Your task to perform on an android device: empty trash in google photos Image 0: 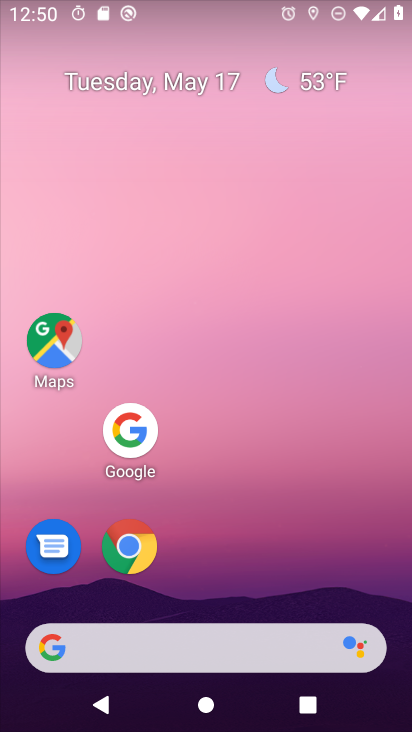
Step 0: drag from (223, 548) to (267, 82)
Your task to perform on an android device: empty trash in google photos Image 1: 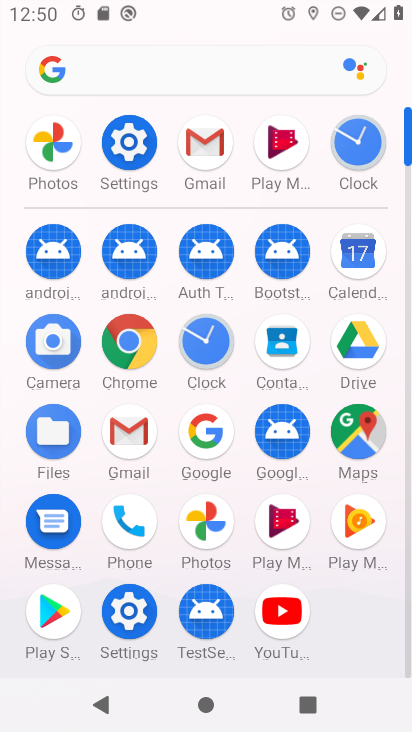
Step 1: click (204, 524)
Your task to perform on an android device: empty trash in google photos Image 2: 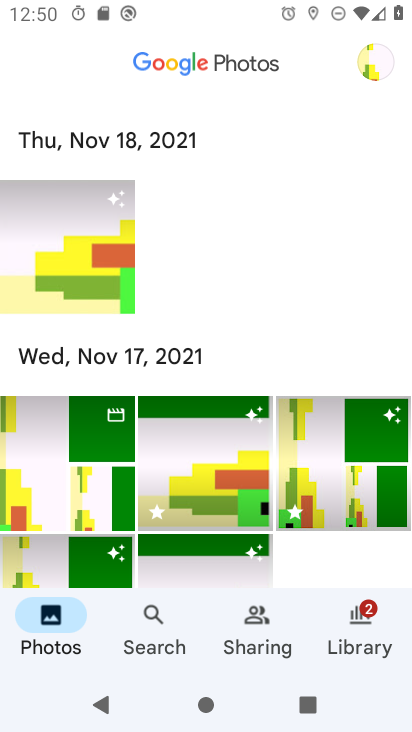
Step 2: click (373, 65)
Your task to perform on an android device: empty trash in google photos Image 3: 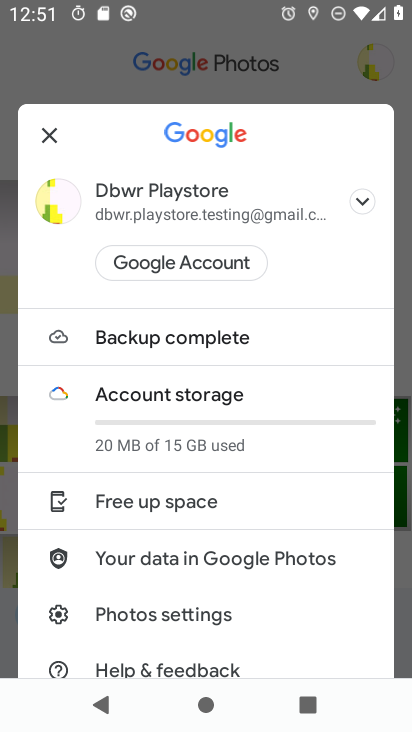
Step 3: drag from (221, 498) to (214, 237)
Your task to perform on an android device: empty trash in google photos Image 4: 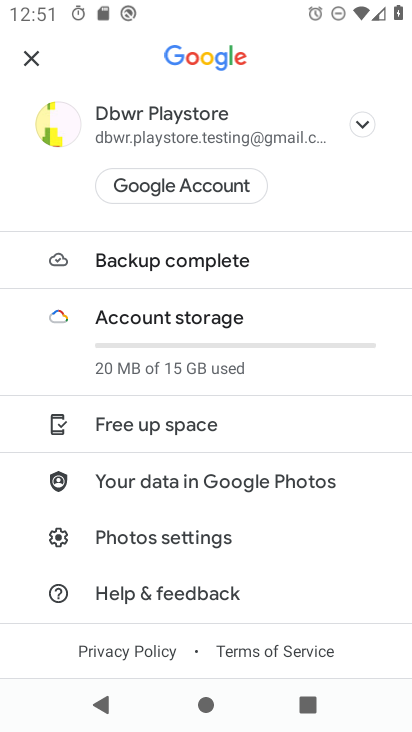
Step 4: press back button
Your task to perform on an android device: empty trash in google photos Image 5: 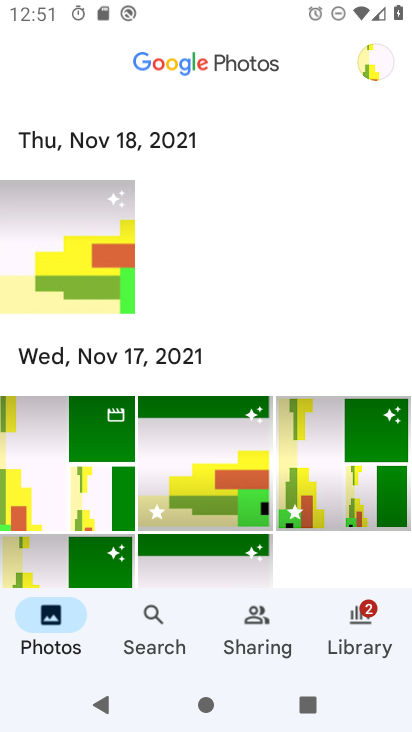
Step 5: click (347, 633)
Your task to perform on an android device: empty trash in google photos Image 6: 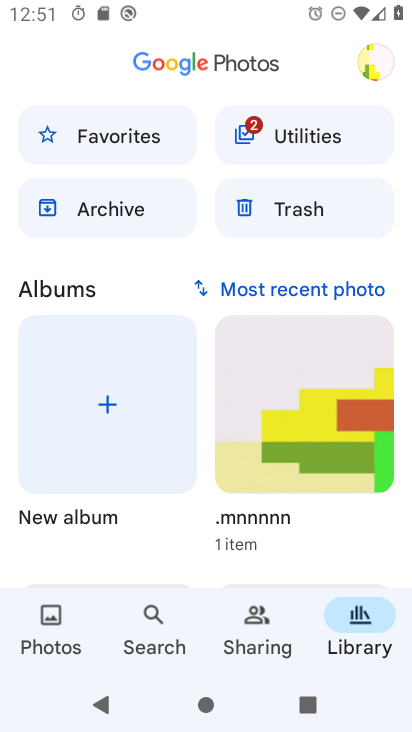
Step 6: click (275, 202)
Your task to perform on an android device: empty trash in google photos Image 7: 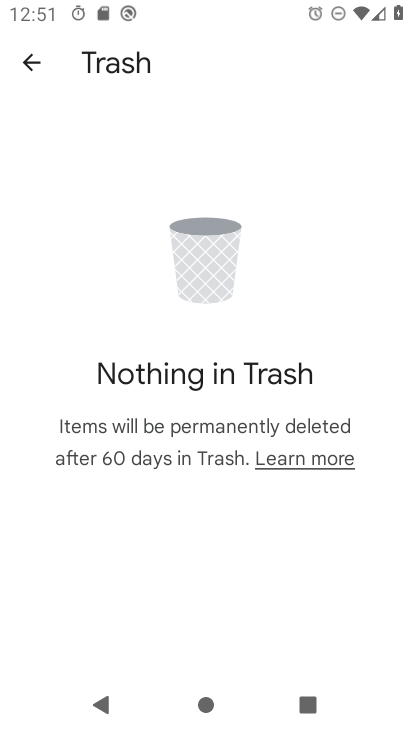
Step 7: task complete